Your task to perform on an android device: open app "Airtel Thanks" Image 0: 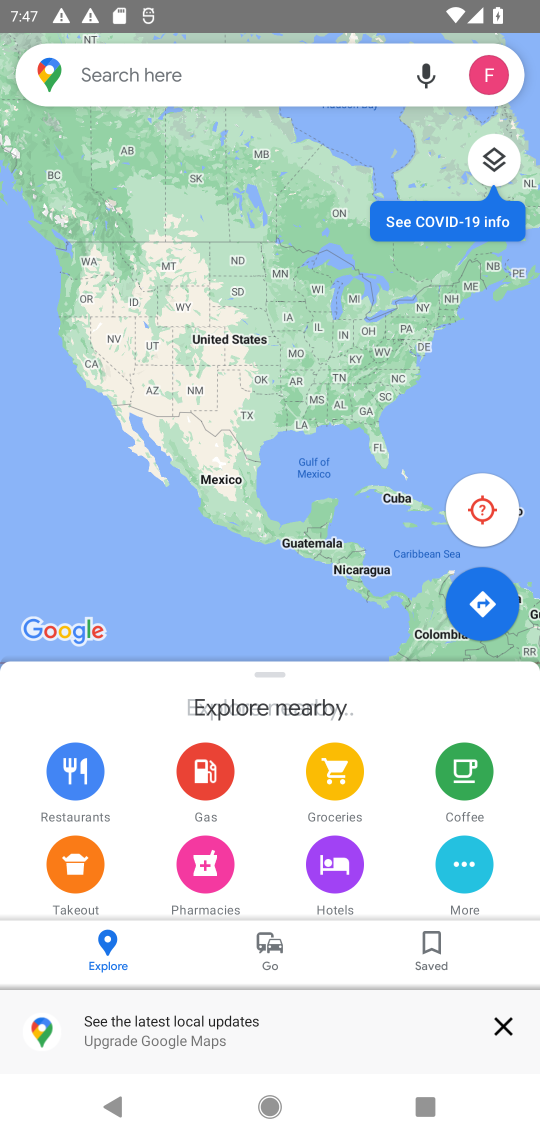
Step 0: press home button
Your task to perform on an android device: open app "Airtel Thanks" Image 1: 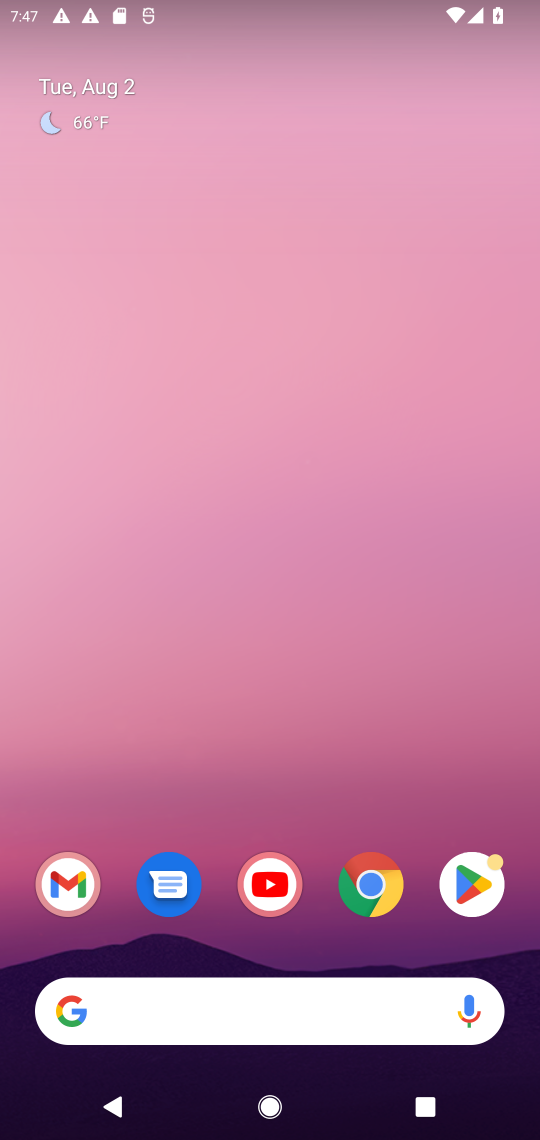
Step 1: click (448, 851)
Your task to perform on an android device: open app "Airtel Thanks" Image 2: 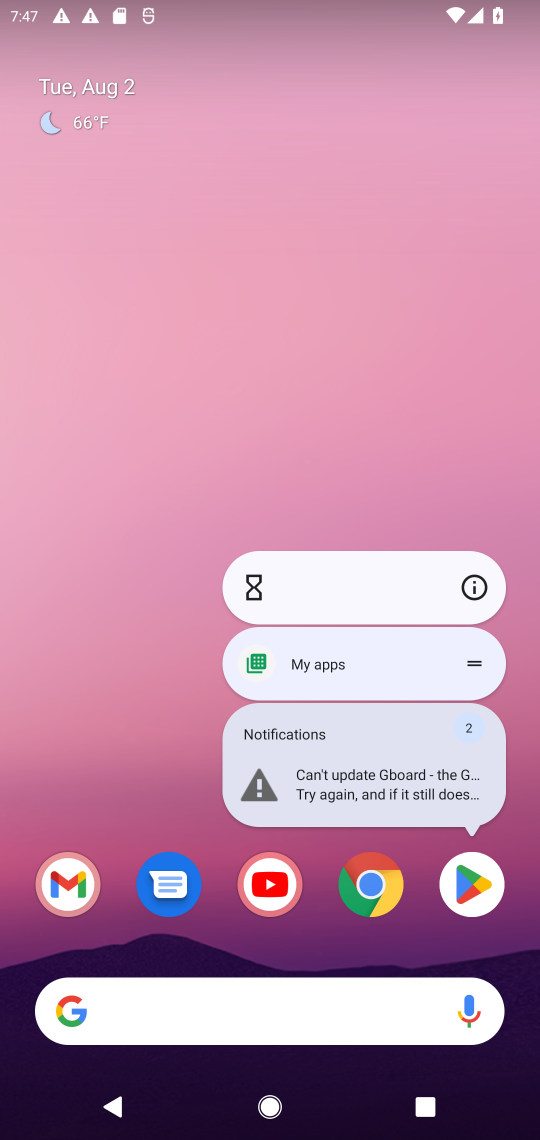
Step 2: click (463, 879)
Your task to perform on an android device: open app "Airtel Thanks" Image 3: 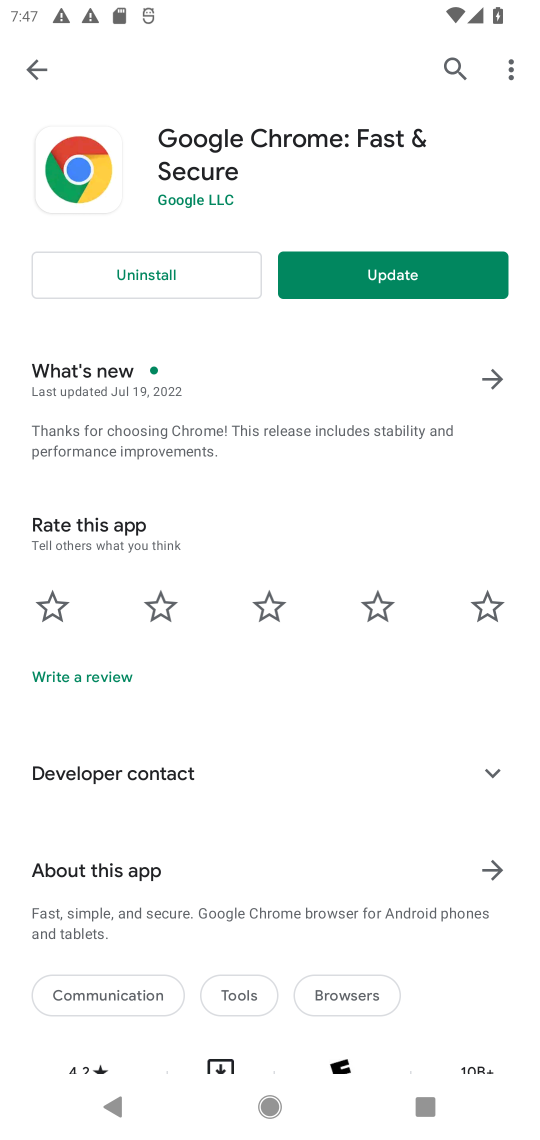
Step 3: click (458, 56)
Your task to perform on an android device: open app "Airtel Thanks" Image 4: 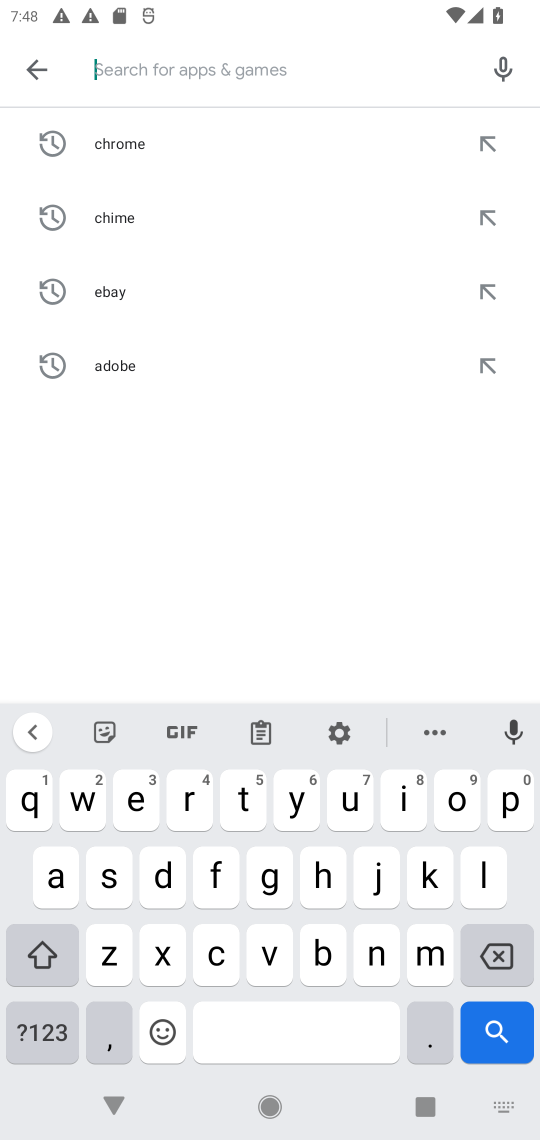
Step 4: click (54, 879)
Your task to perform on an android device: open app "Airtel Thanks" Image 5: 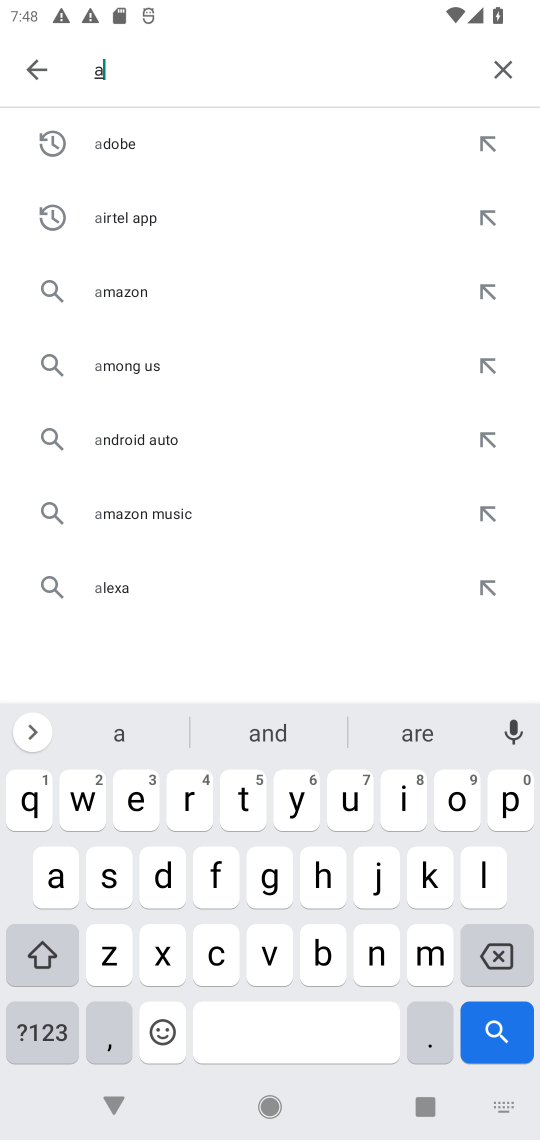
Step 5: click (399, 788)
Your task to perform on an android device: open app "Airtel Thanks" Image 6: 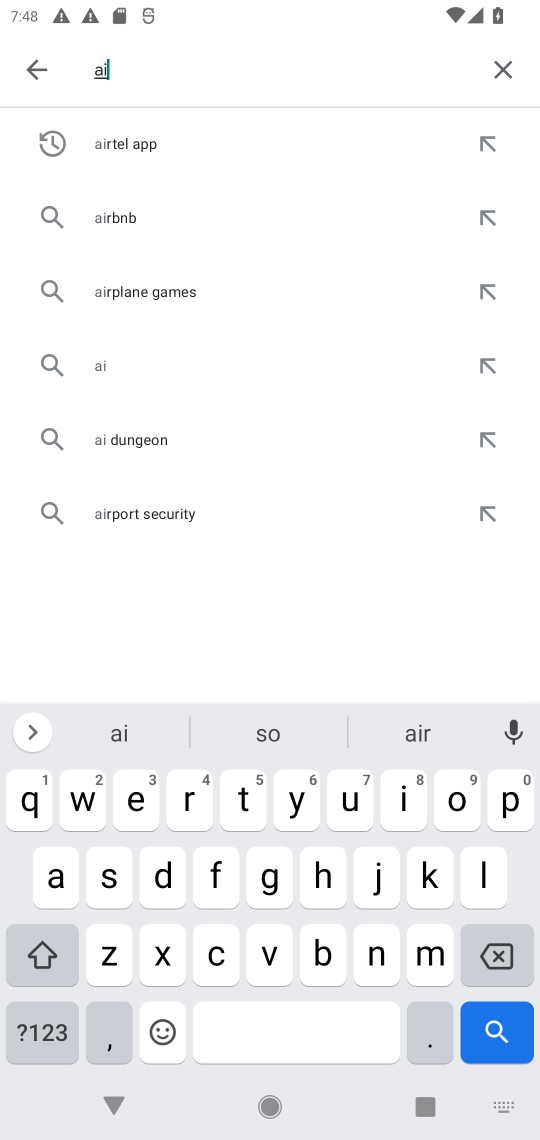
Step 6: click (176, 792)
Your task to perform on an android device: open app "Airtel Thanks" Image 7: 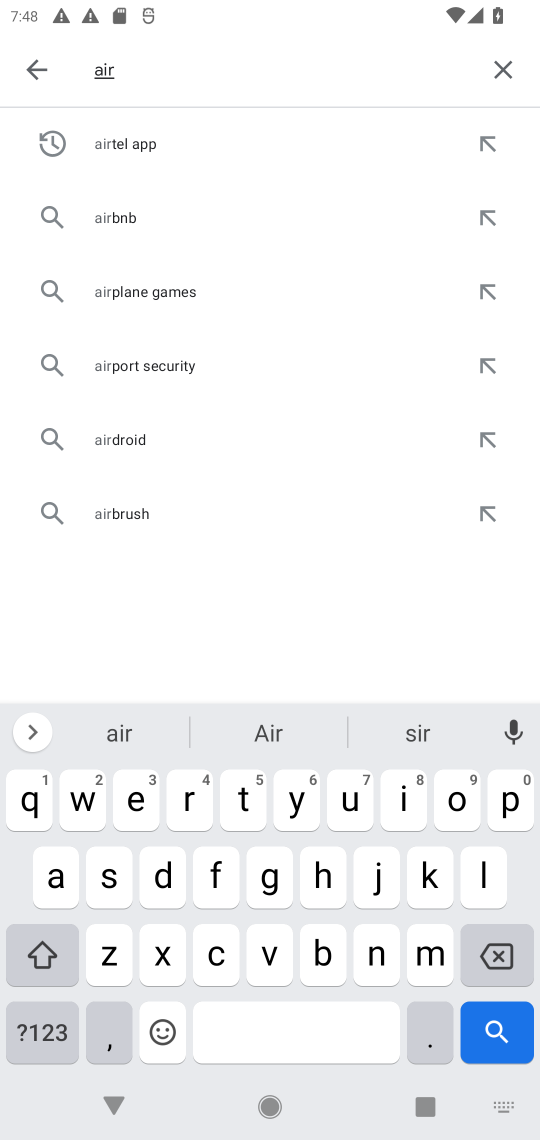
Step 7: click (128, 139)
Your task to perform on an android device: open app "Airtel Thanks" Image 8: 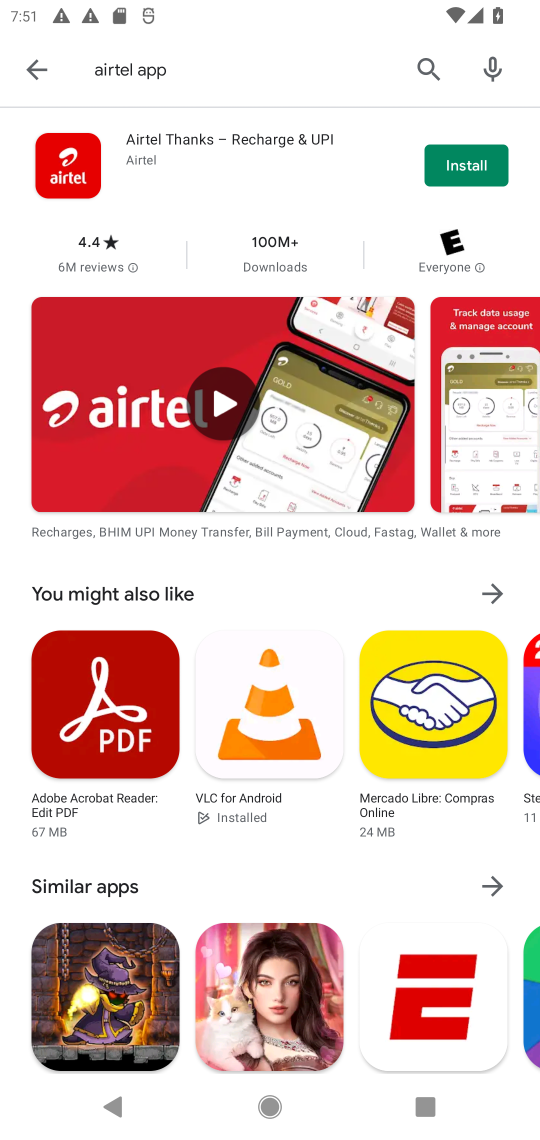
Step 8: task complete